Your task to perform on an android device: Open calendar and show me the second week of next month Image 0: 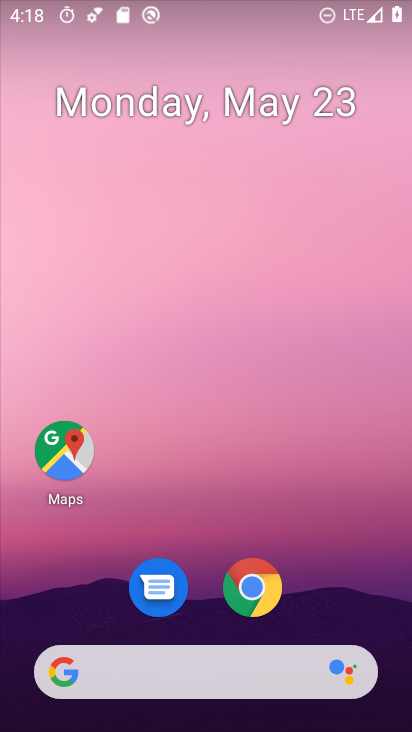
Step 0: drag from (197, 606) to (258, 2)
Your task to perform on an android device: Open calendar and show me the second week of next month Image 1: 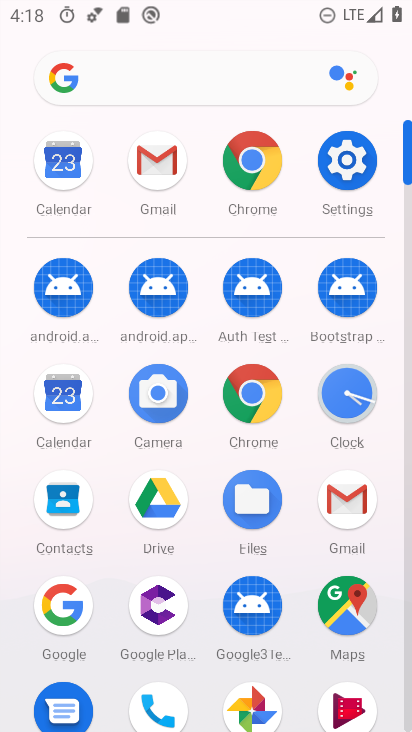
Step 1: click (67, 420)
Your task to perform on an android device: Open calendar and show me the second week of next month Image 2: 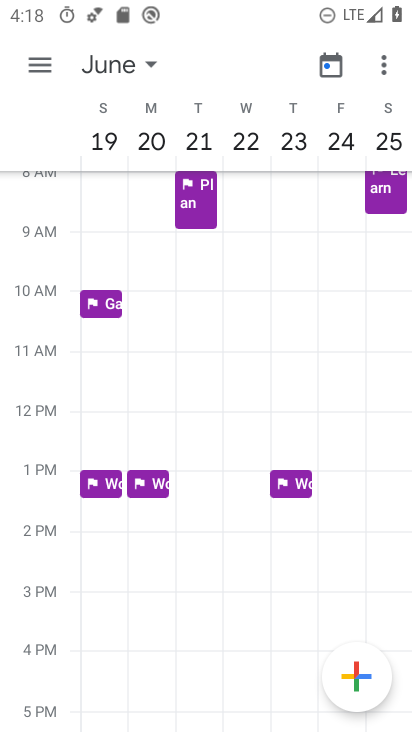
Step 2: task complete